Your task to perform on an android device: open chrome privacy settings Image 0: 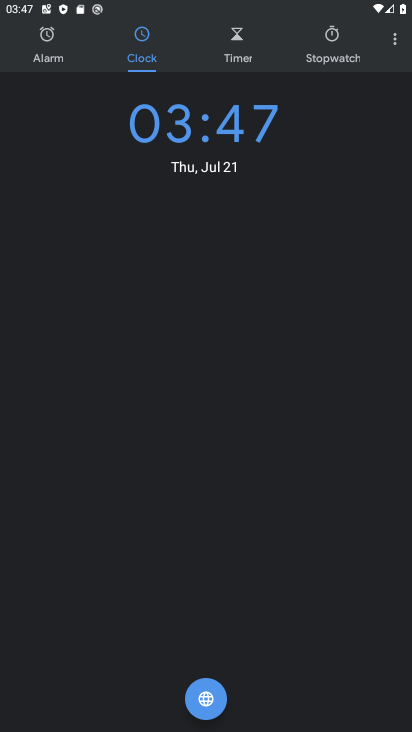
Step 0: press home button
Your task to perform on an android device: open chrome privacy settings Image 1: 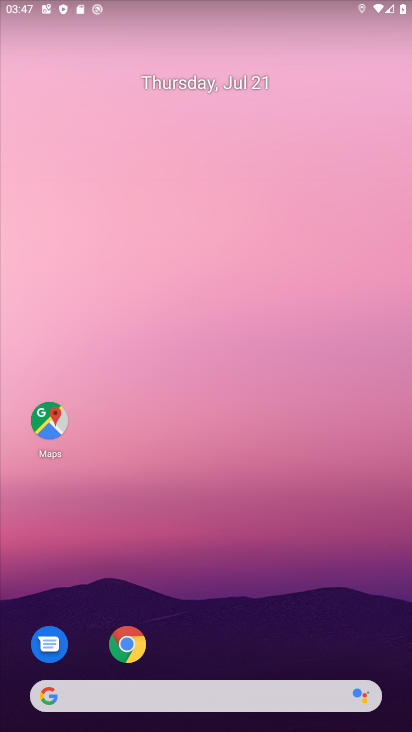
Step 1: click (129, 651)
Your task to perform on an android device: open chrome privacy settings Image 2: 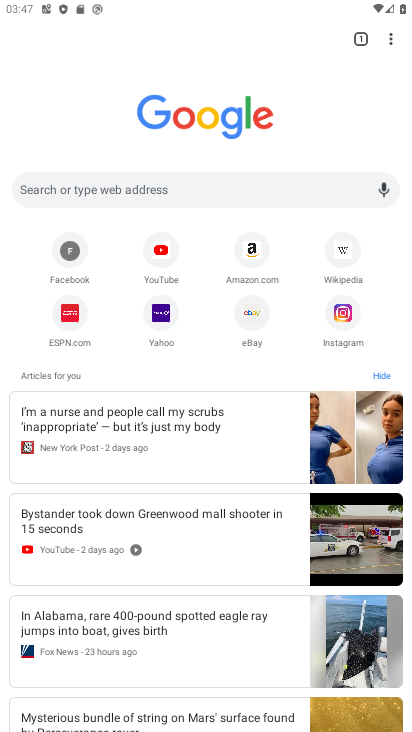
Step 2: click (391, 38)
Your task to perform on an android device: open chrome privacy settings Image 3: 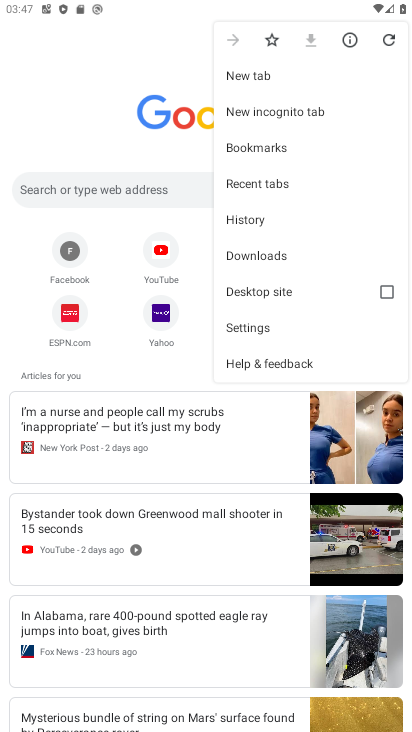
Step 3: click (257, 328)
Your task to perform on an android device: open chrome privacy settings Image 4: 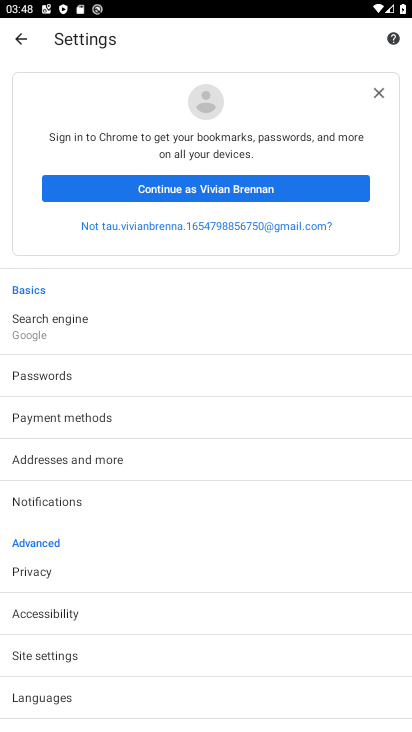
Step 4: click (51, 577)
Your task to perform on an android device: open chrome privacy settings Image 5: 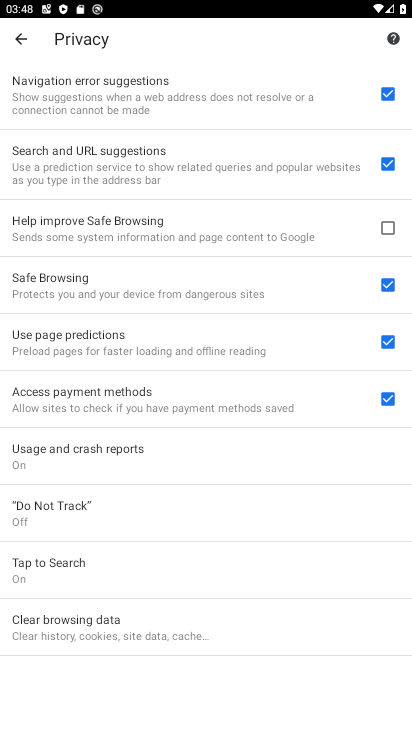
Step 5: task complete